Your task to perform on an android device: Go to Amazon Image 0: 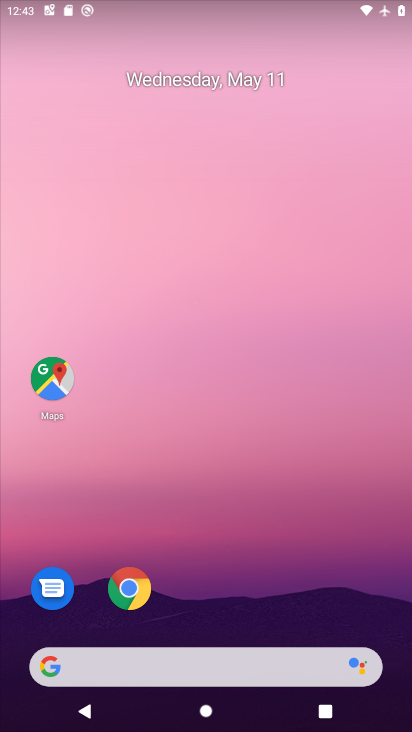
Step 0: click (136, 600)
Your task to perform on an android device: Go to Amazon Image 1: 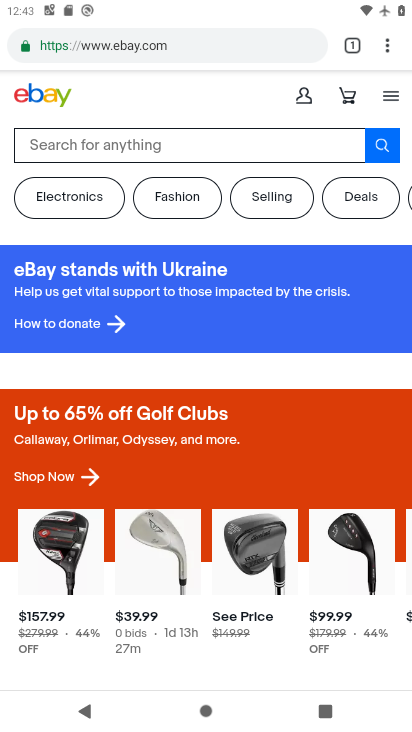
Step 1: click (350, 45)
Your task to perform on an android device: Go to Amazon Image 2: 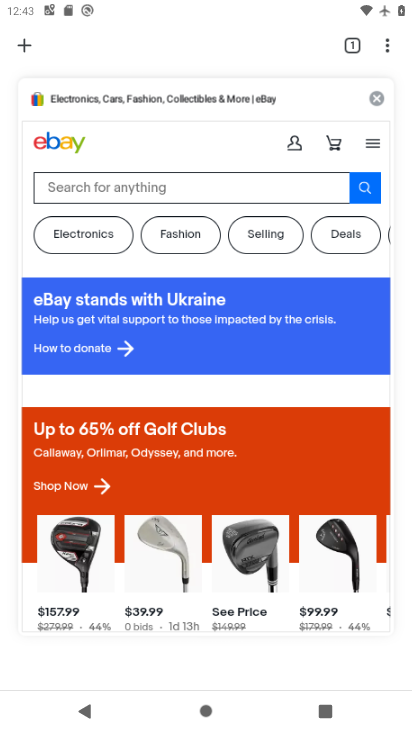
Step 2: click (16, 43)
Your task to perform on an android device: Go to Amazon Image 3: 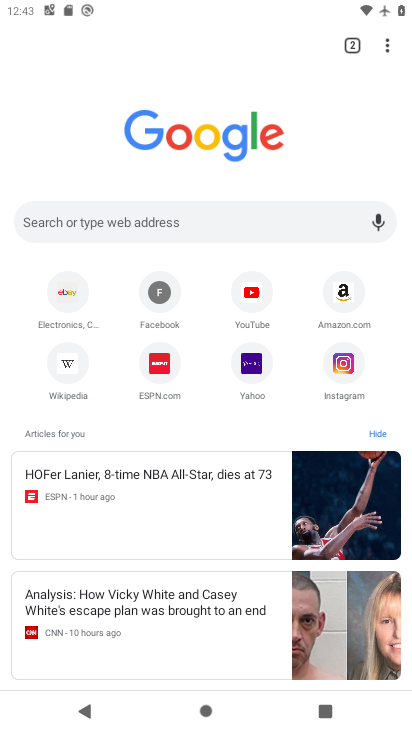
Step 3: click (339, 294)
Your task to perform on an android device: Go to Amazon Image 4: 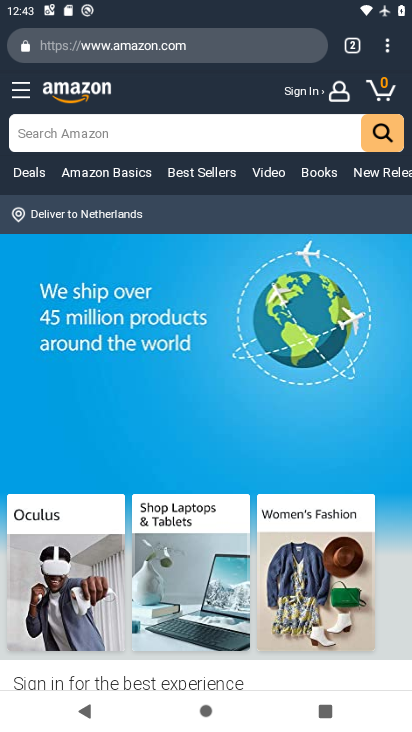
Step 4: task complete